Your task to perform on an android device: toggle notifications settings in the gmail app Image 0: 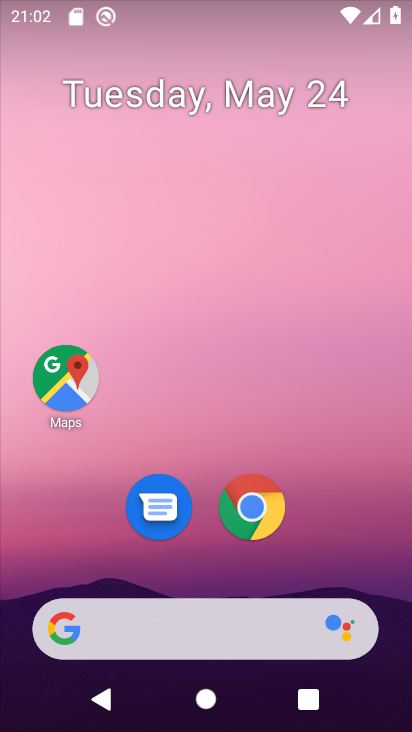
Step 0: drag from (188, 562) to (239, 129)
Your task to perform on an android device: toggle notifications settings in the gmail app Image 1: 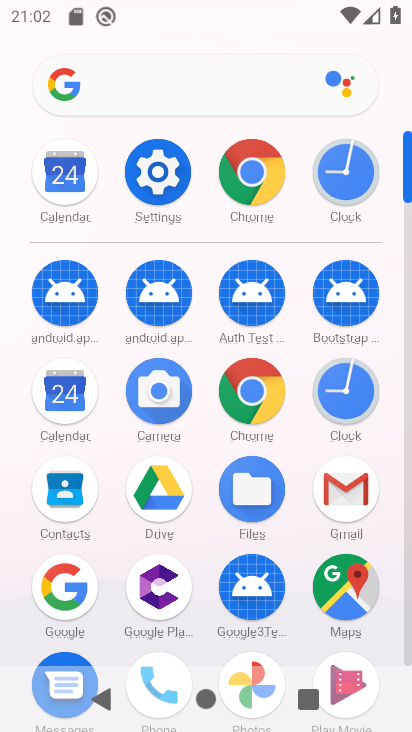
Step 1: click (334, 481)
Your task to perform on an android device: toggle notifications settings in the gmail app Image 2: 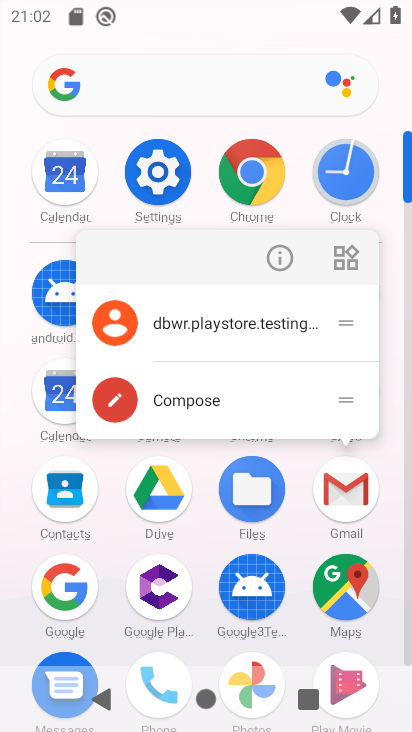
Step 2: click (273, 270)
Your task to perform on an android device: toggle notifications settings in the gmail app Image 3: 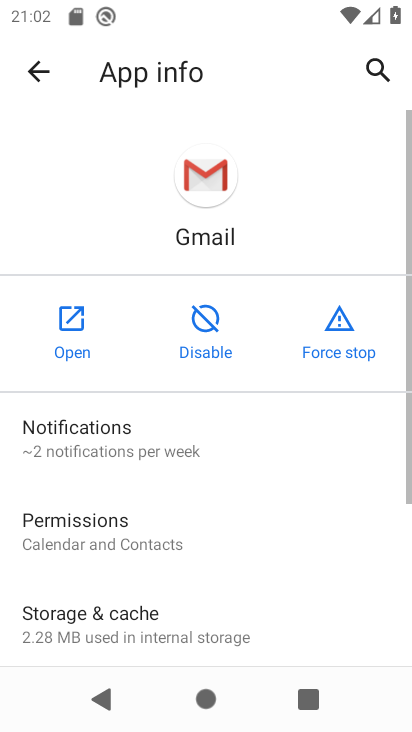
Step 3: click (91, 328)
Your task to perform on an android device: toggle notifications settings in the gmail app Image 4: 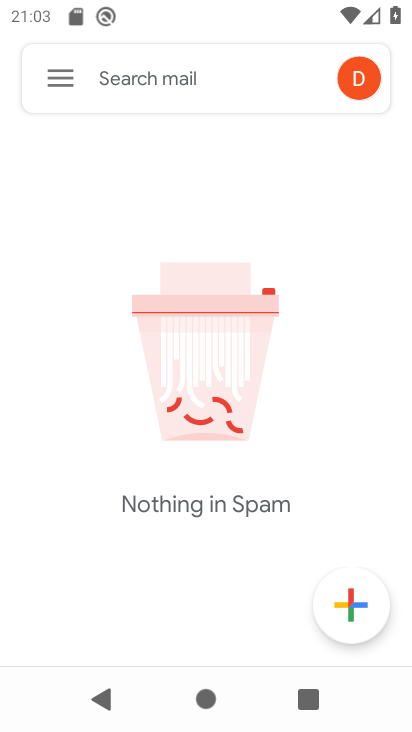
Step 4: drag from (265, 556) to (264, 219)
Your task to perform on an android device: toggle notifications settings in the gmail app Image 5: 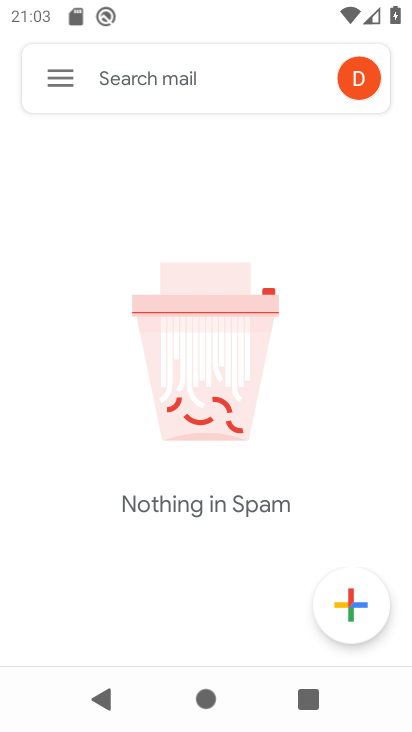
Step 5: click (62, 84)
Your task to perform on an android device: toggle notifications settings in the gmail app Image 6: 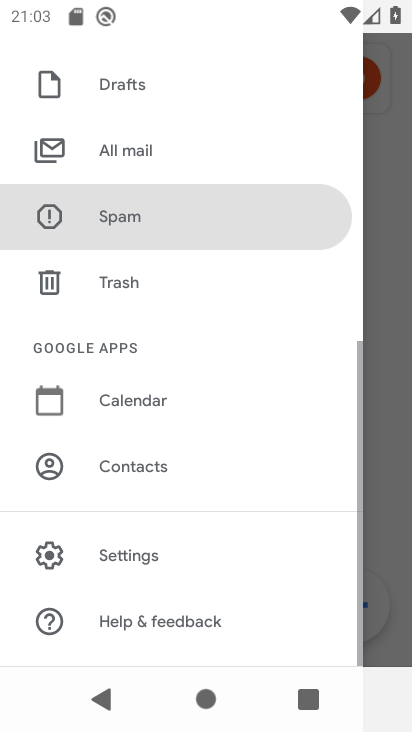
Step 6: drag from (181, 603) to (193, 396)
Your task to perform on an android device: toggle notifications settings in the gmail app Image 7: 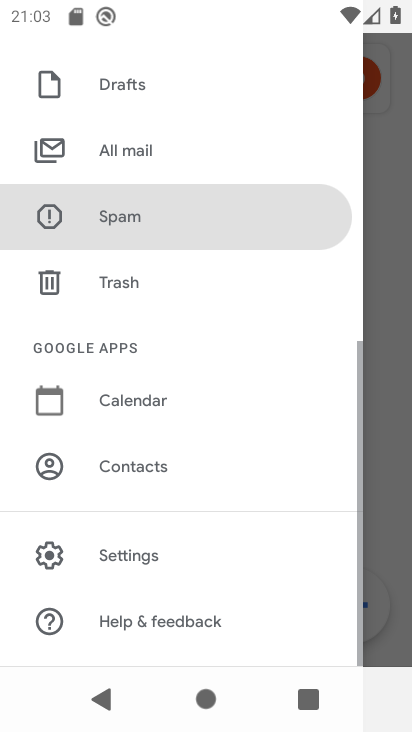
Step 7: click (175, 550)
Your task to perform on an android device: toggle notifications settings in the gmail app Image 8: 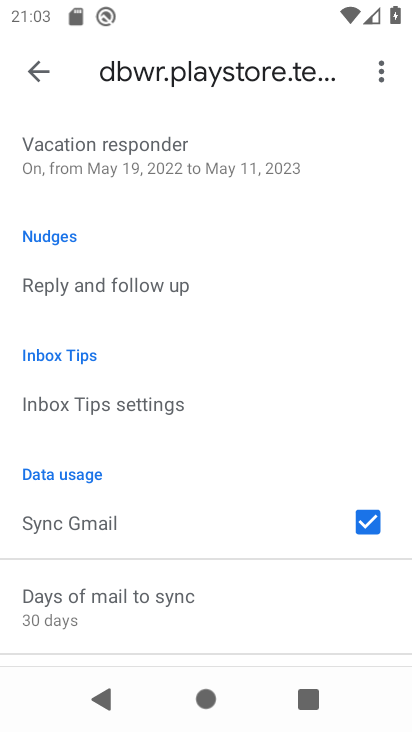
Step 8: drag from (167, 653) to (224, 175)
Your task to perform on an android device: toggle notifications settings in the gmail app Image 9: 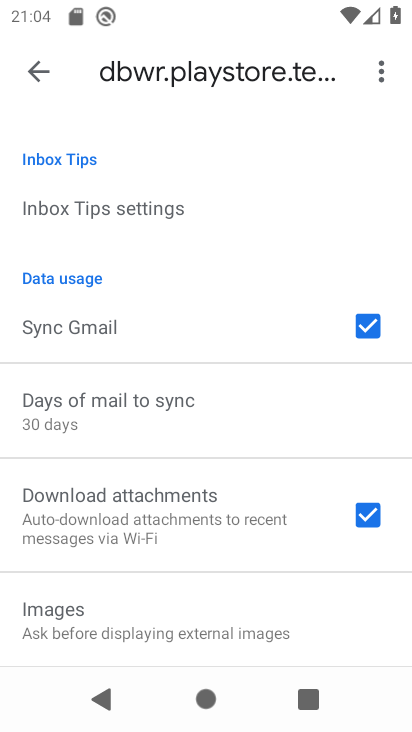
Step 9: drag from (170, 625) to (152, 179)
Your task to perform on an android device: toggle notifications settings in the gmail app Image 10: 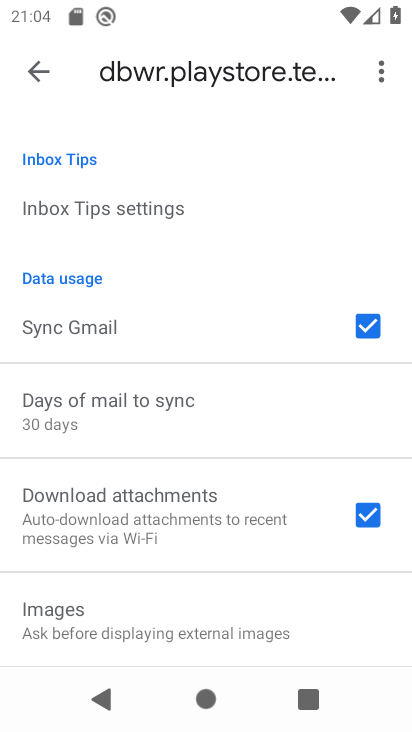
Step 10: drag from (168, 211) to (252, 516)
Your task to perform on an android device: toggle notifications settings in the gmail app Image 11: 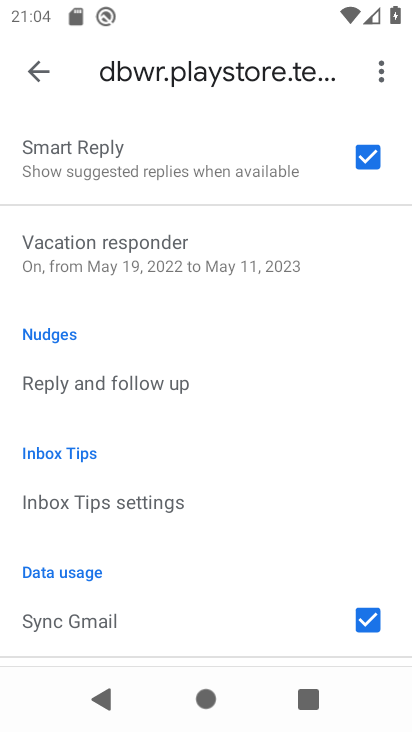
Step 11: click (34, 86)
Your task to perform on an android device: toggle notifications settings in the gmail app Image 12: 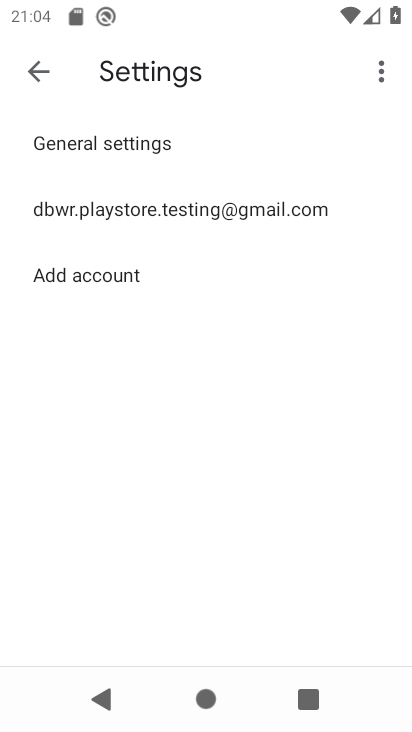
Step 12: click (40, 65)
Your task to perform on an android device: toggle notifications settings in the gmail app Image 13: 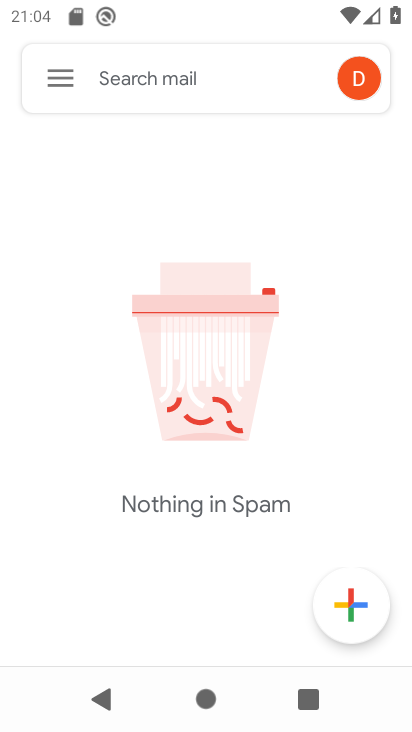
Step 13: click (53, 61)
Your task to perform on an android device: toggle notifications settings in the gmail app Image 14: 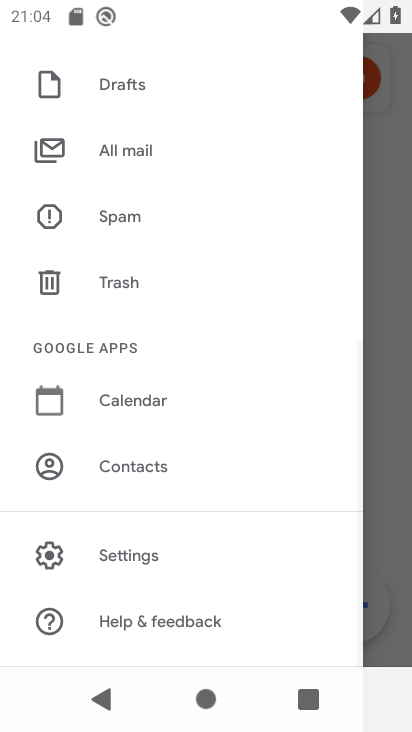
Step 14: click (117, 538)
Your task to perform on an android device: toggle notifications settings in the gmail app Image 15: 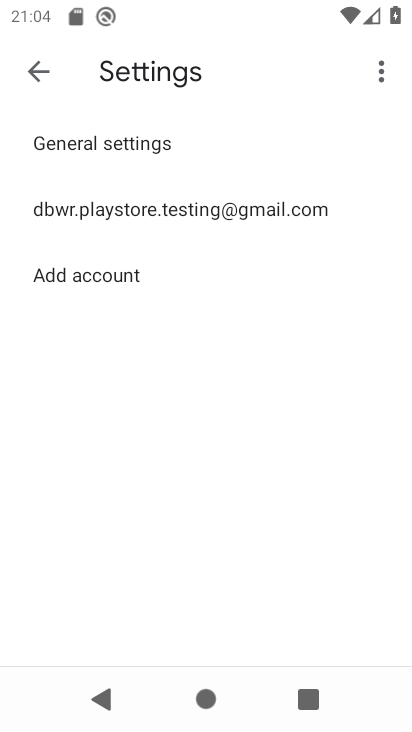
Step 15: drag from (247, 387) to (277, 202)
Your task to perform on an android device: toggle notifications settings in the gmail app Image 16: 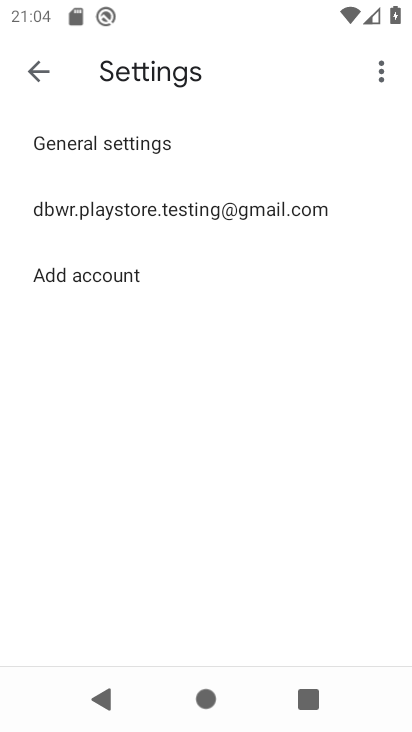
Step 16: click (207, 200)
Your task to perform on an android device: toggle notifications settings in the gmail app Image 17: 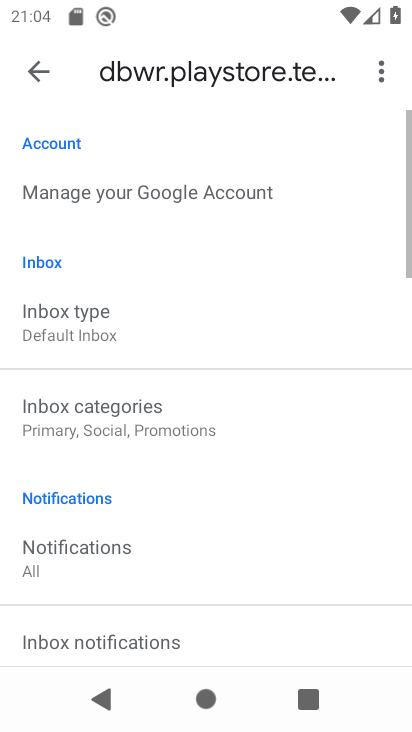
Step 17: drag from (146, 418) to (229, 113)
Your task to perform on an android device: toggle notifications settings in the gmail app Image 18: 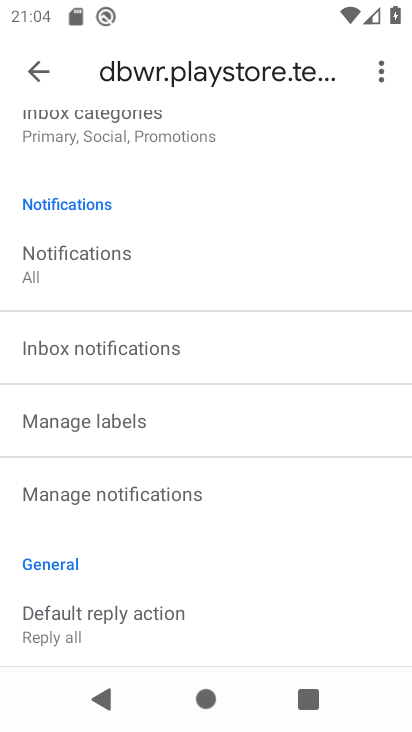
Step 18: click (131, 498)
Your task to perform on an android device: toggle notifications settings in the gmail app Image 19: 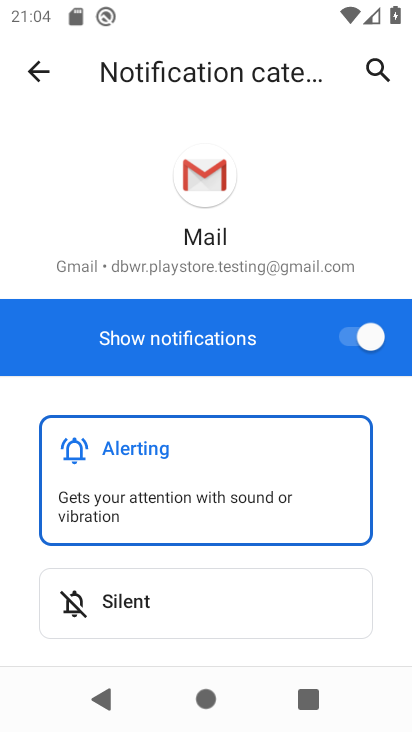
Step 19: click (374, 332)
Your task to perform on an android device: toggle notifications settings in the gmail app Image 20: 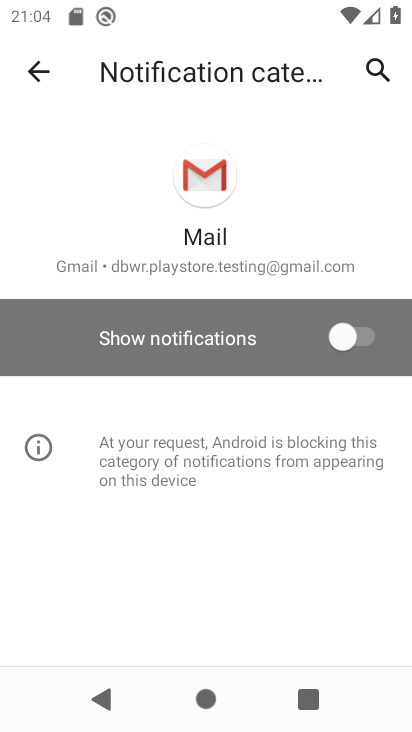
Step 20: task complete